Your task to perform on an android device: search for starred emails in the gmail app Image 0: 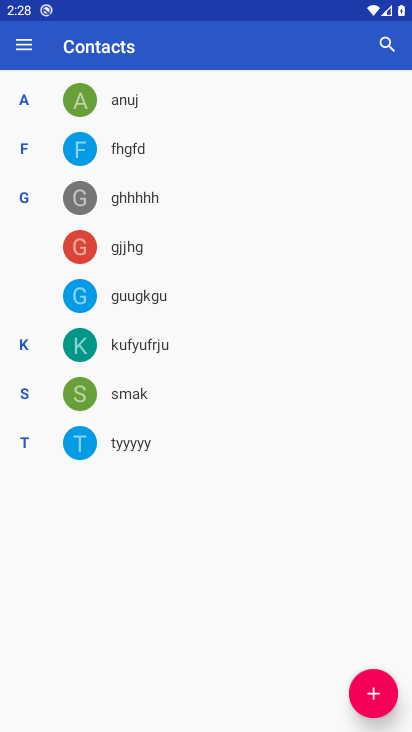
Step 0: press home button
Your task to perform on an android device: search for starred emails in the gmail app Image 1: 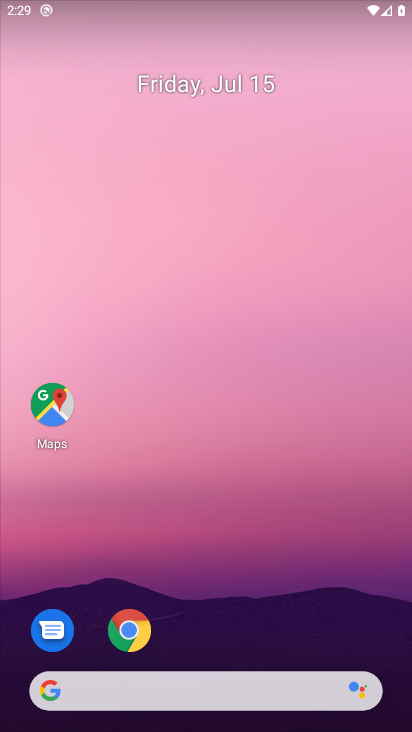
Step 1: press home button
Your task to perform on an android device: search for starred emails in the gmail app Image 2: 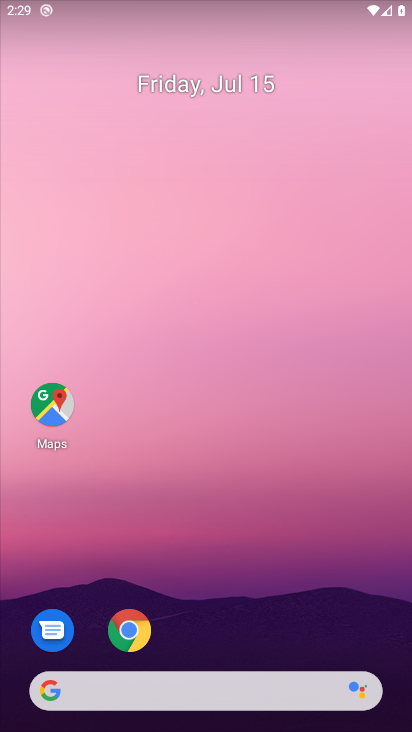
Step 2: drag from (247, 601) to (211, 18)
Your task to perform on an android device: search for starred emails in the gmail app Image 3: 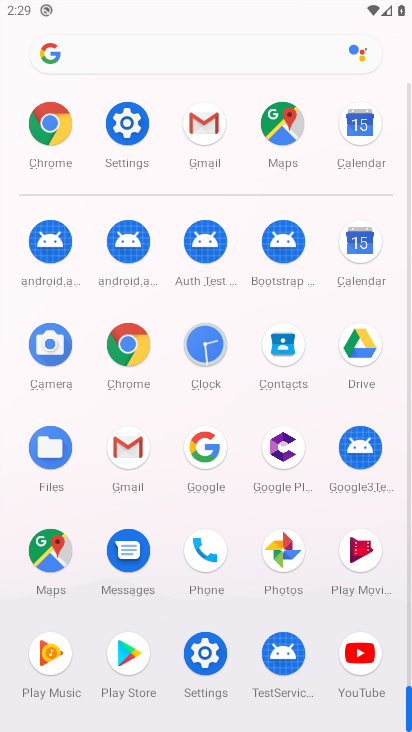
Step 3: click (207, 129)
Your task to perform on an android device: search for starred emails in the gmail app Image 4: 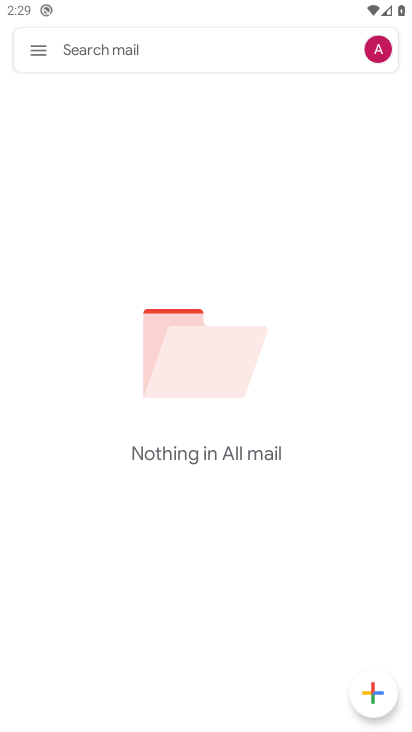
Step 4: click (37, 50)
Your task to perform on an android device: search for starred emails in the gmail app Image 5: 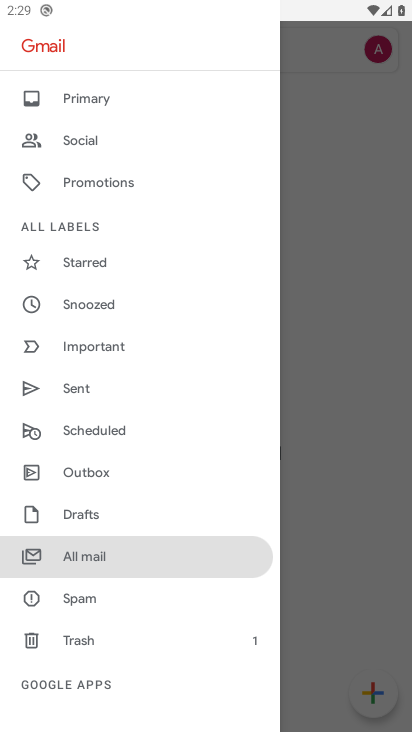
Step 5: click (96, 269)
Your task to perform on an android device: search for starred emails in the gmail app Image 6: 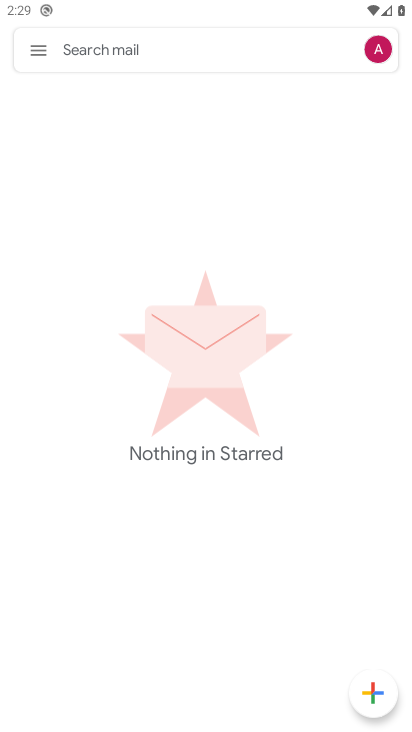
Step 6: task complete